Your task to perform on an android device: check storage Image 0: 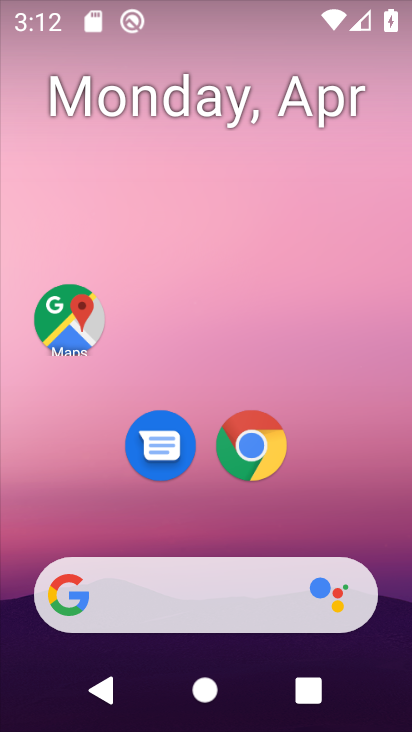
Step 0: drag from (242, 549) to (379, 55)
Your task to perform on an android device: check storage Image 1: 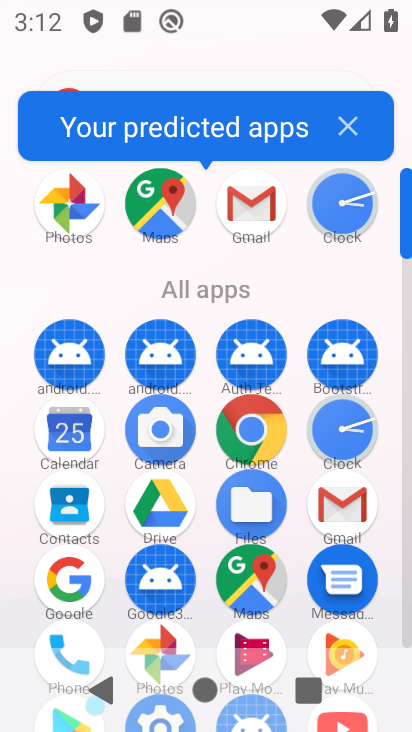
Step 1: drag from (215, 522) to (406, 64)
Your task to perform on an android device: check storage Image 2: 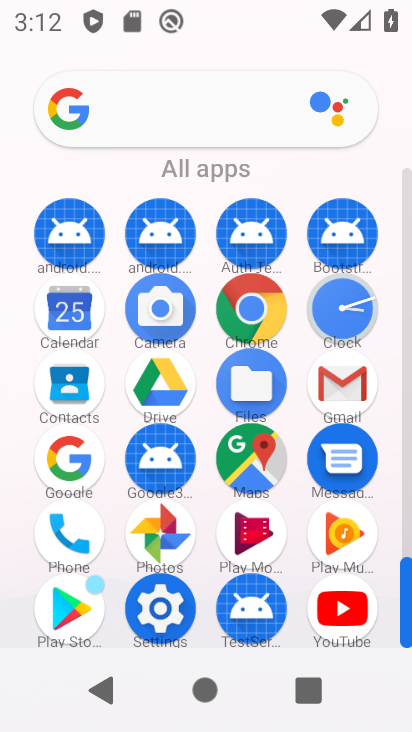
Step 2: click (148, 597)
Your task to perform on an android device: check storage Image 3: 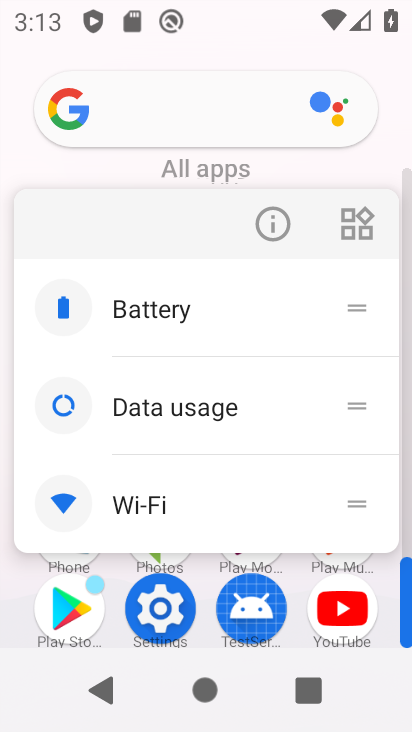
Step 3: click (148, 597)
Your task to perform on an android device: check storage Image 4: 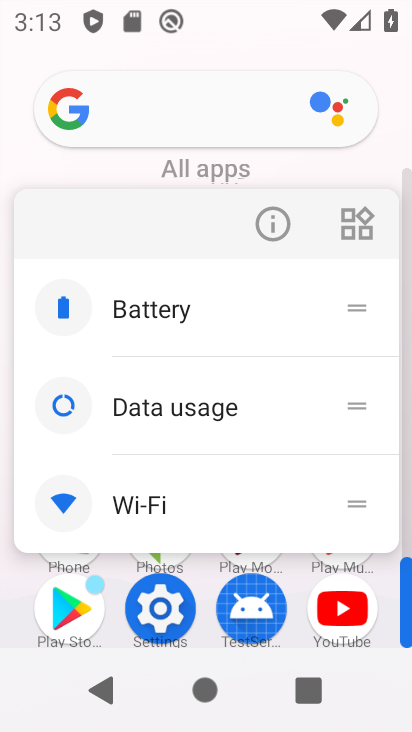
Step 4: click (148, 597)
Your task to perform on an android device: check storage Image 5: 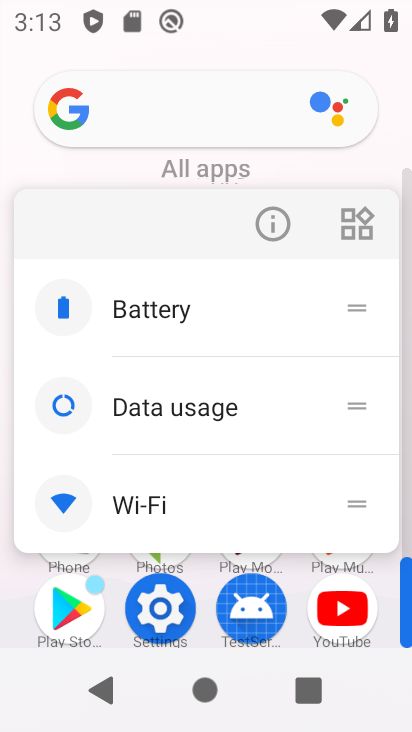
Step 5: click (148, 597)
Your task to perform on an android device: check storage Image 6: 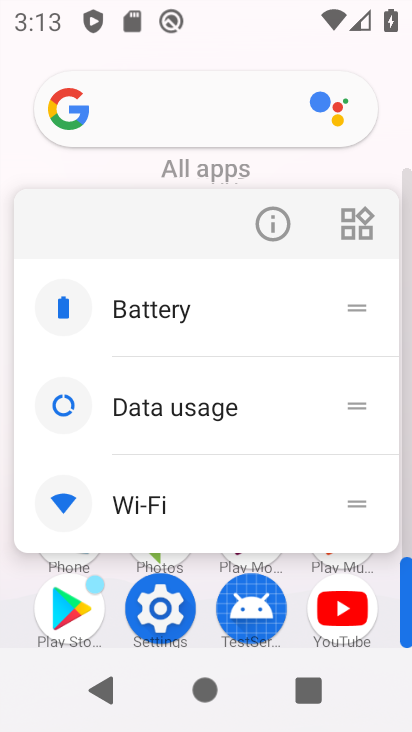
Step 6: click (148, 597)
Your task to perform on an android device: check storage Image 7: 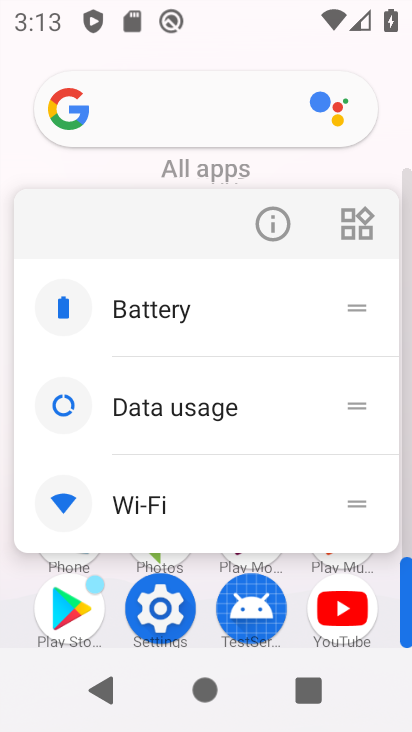
Step 7: click (148, 597)
Your task to perform on an android device: check storage Image 8: 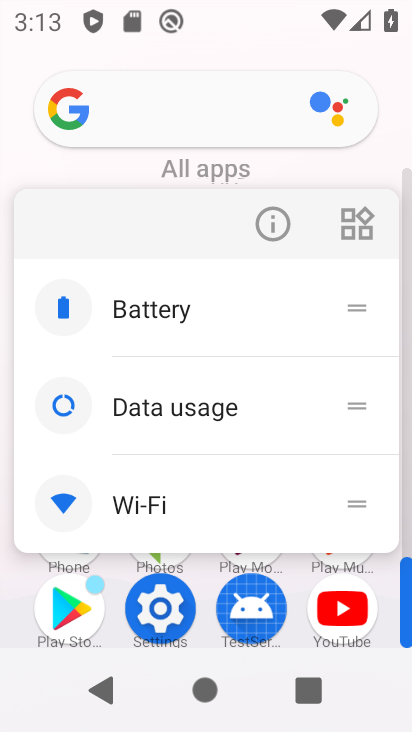
Step 8: click (148, 597)
Your task to perform on an android device: check storage Image 9: 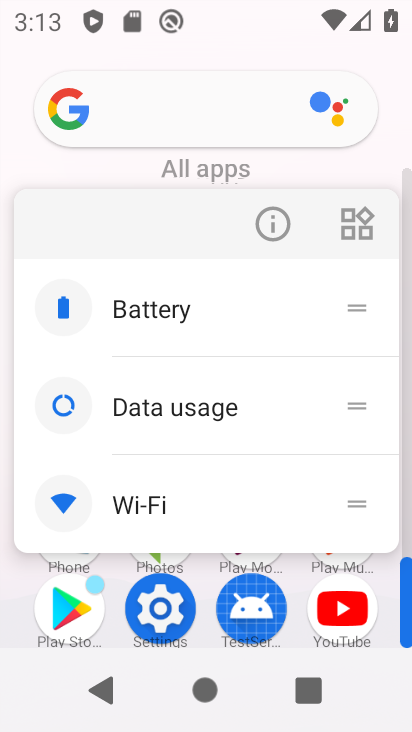
Step 9: click (148, 597)
Your task to perform on an android device: check storage Image 10: 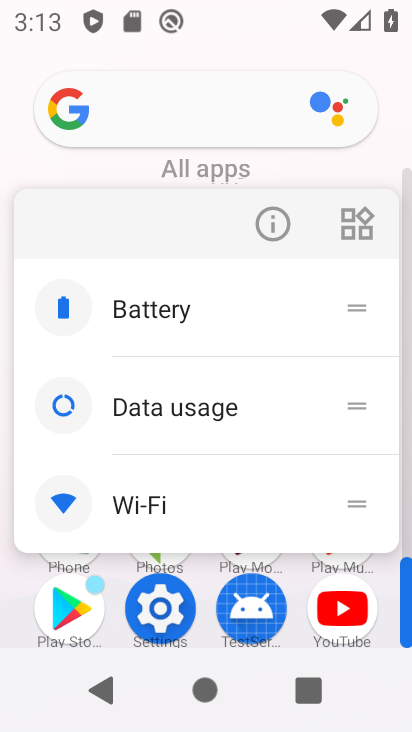
Step 10: click (148, 597)
Your task to perform on an android device: check storage Image 11: 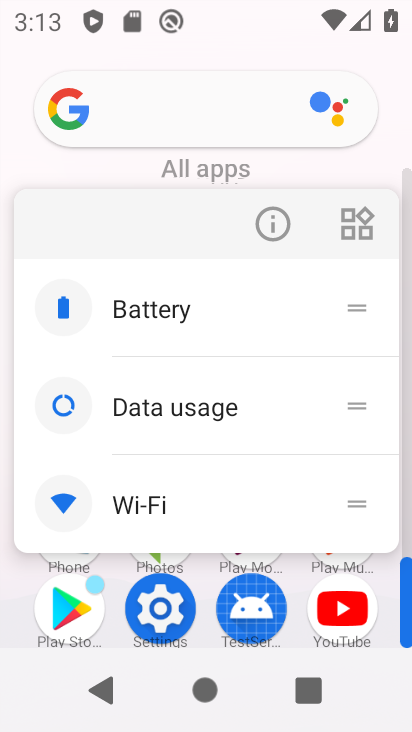
Step 11: click (148, 597)
Your task to perform on an android device: check storage Image 12: 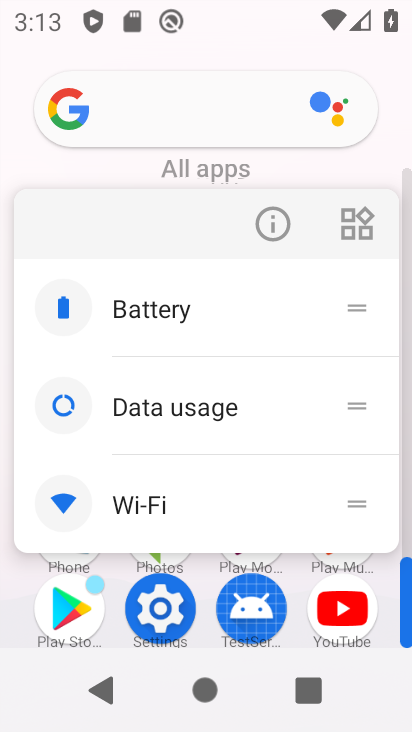
Step 12: click (148, 597)
Your task to perform on an android device: check storage Image 13: 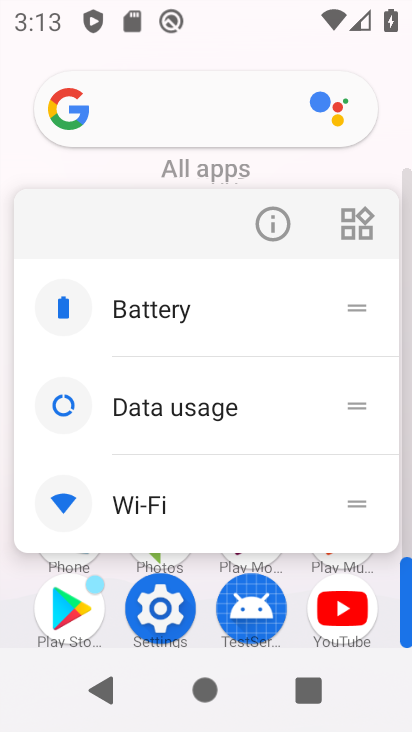
Step 13: click (148, 597)
Your task to perform on an android device: check storage Image 14: 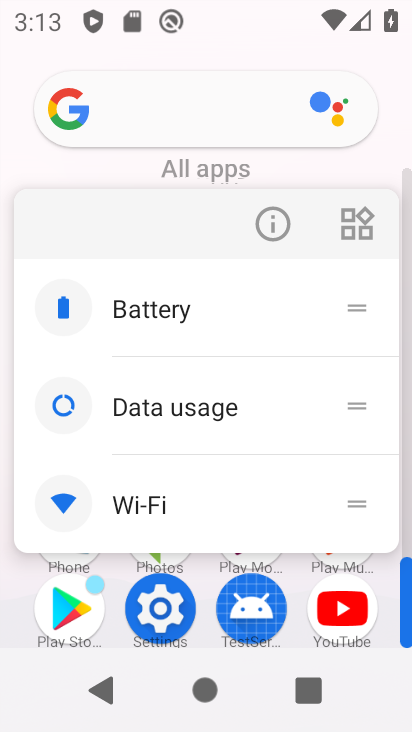
Step 14: click (148, 597)
Your task to perform on an android device: check storage Image 15: 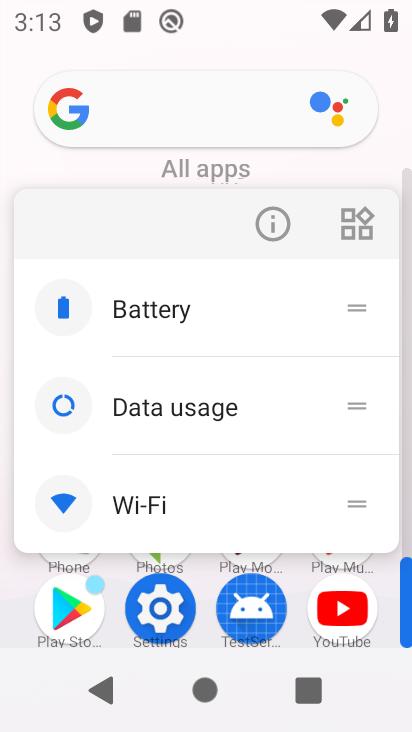
Step 15: click (148, 597)
Your task to perform on an android device: check storage Image 16: 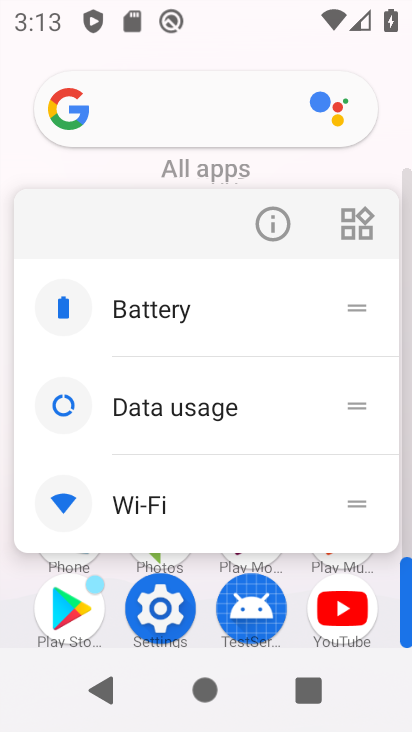
Step 16: click (148, 597)
Your task to perform on an android device: check storage Image 17: 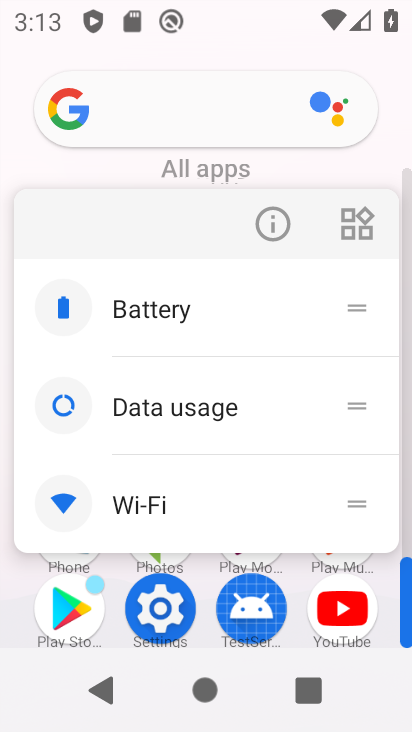
Step 17: click (172, 619)
Your task to perform on an android device: check storage Image 18: 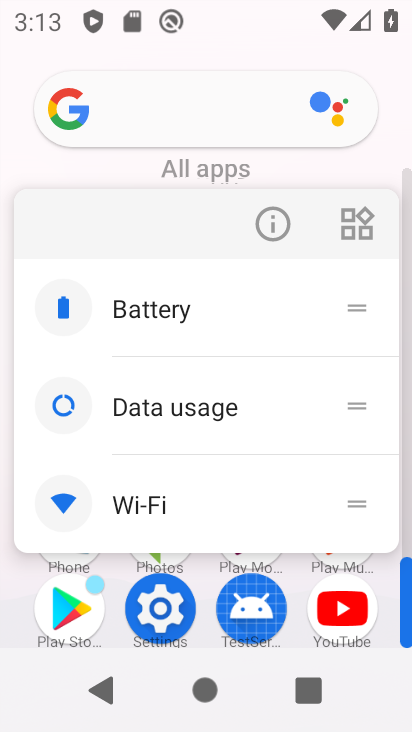
Step 18: click (172, 619)
Your task to perform on an android device: check storage Image 19: 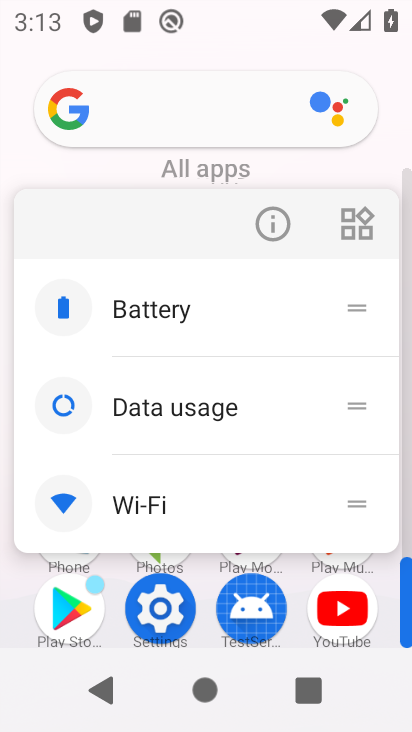
Step 19: click (172, 619)
Your task to perform on an android device: check storage Image 20: 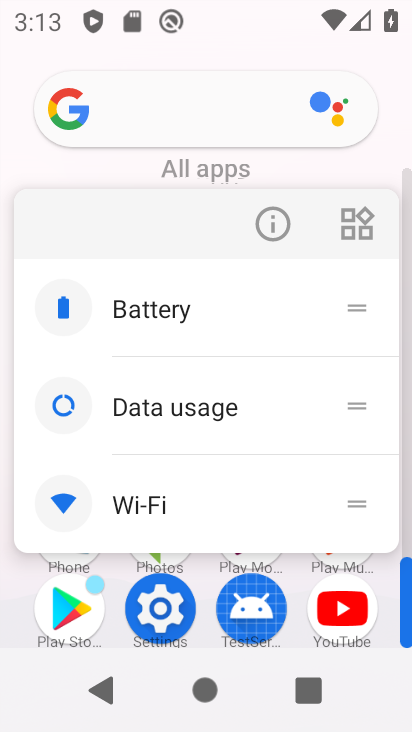
Step 20: click (149, 616)
Your task to perform on an android device: check storage Image 21: 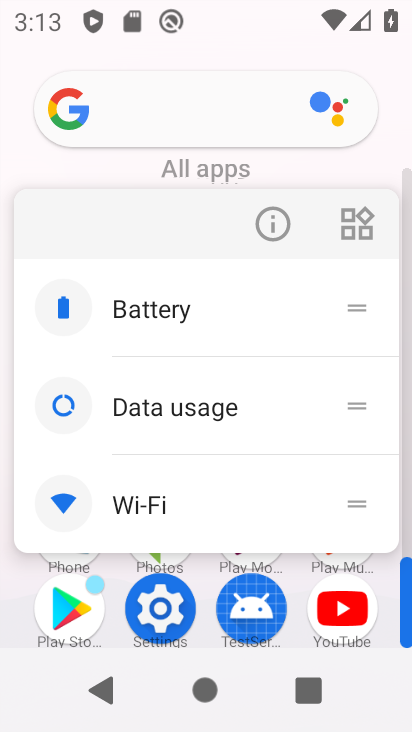
Step 21: click (149, 616)
Your task to perform on an android device: check storage Image 22: 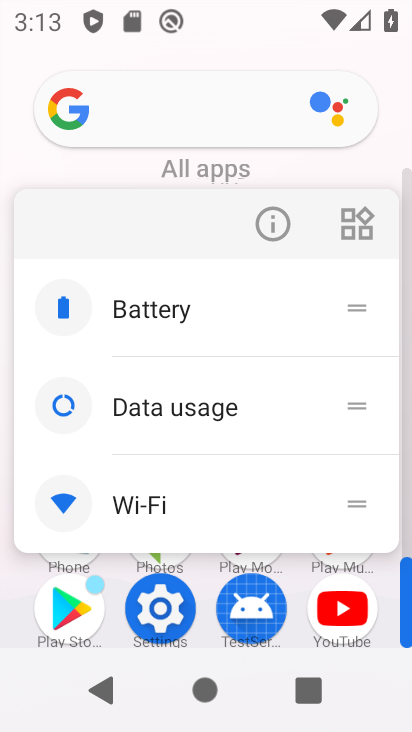
Step 22: click (156, 609)
Your task to perform on an android device: check storage Image 23: 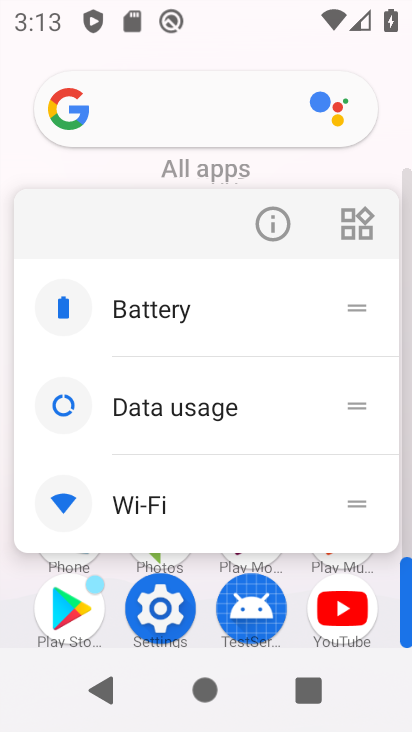
Step 23: click (156, 609)
Your task to perform on an android device: check storage Image 24: 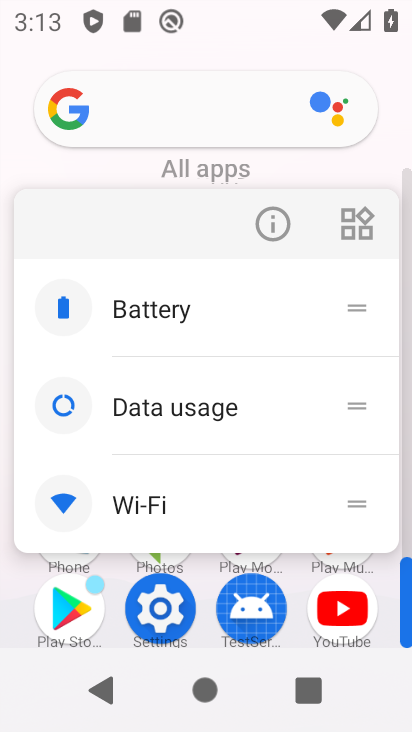
Step 24: click (156, 609)
Your task to perform on an android device: check storage Image 25: 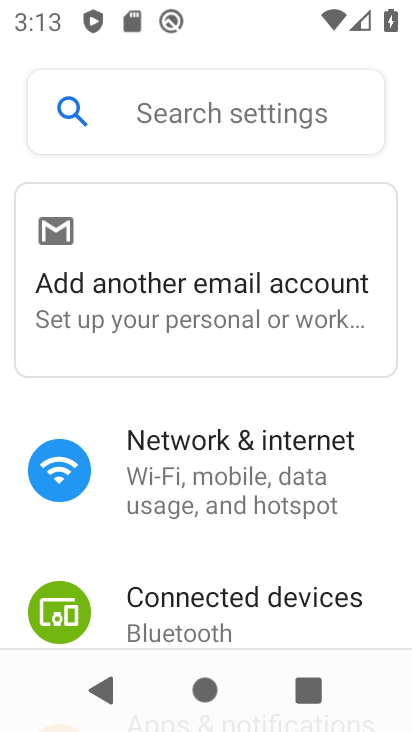
Step 25: drag from (248, 537) to (404, 78)
Your task to perform on an android device: check storage Image 26: 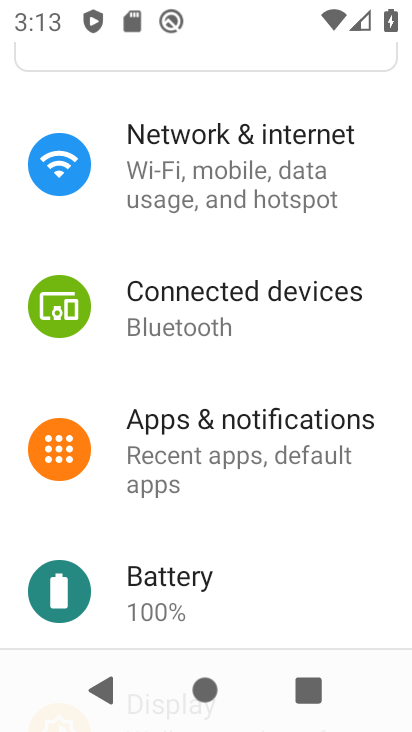
Step 26: drag from (234, 534) to (389, 99)
Your task to perform on an android device: check storage Image 27: 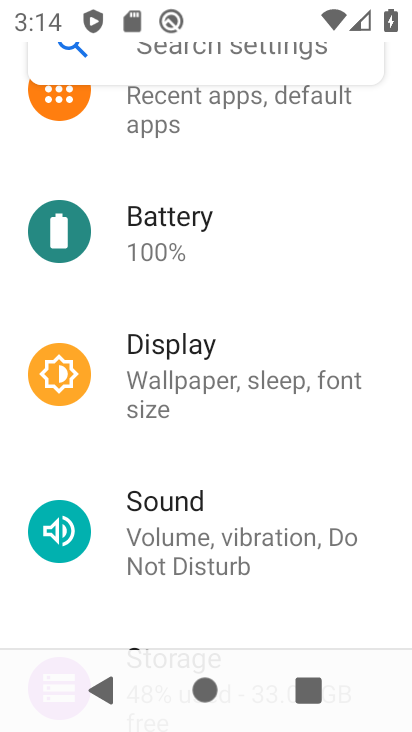
Step 27: drag from (332, 516) to (395, 105)
Your task to perform on an android device: check storage Image 28: 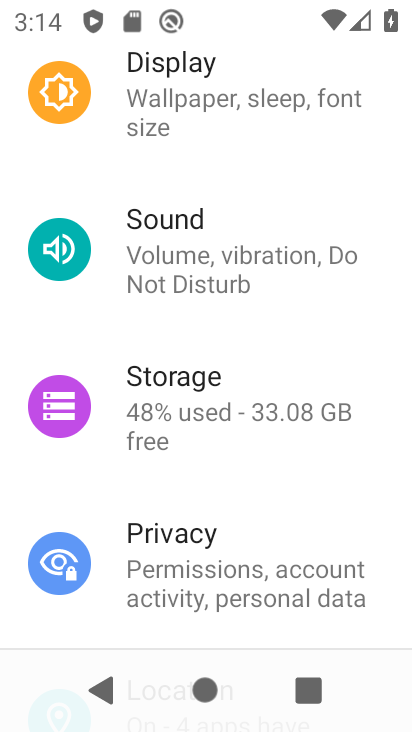
Step 28: click (192, 376)
Your task to perform on an android device: check storage Image 29: 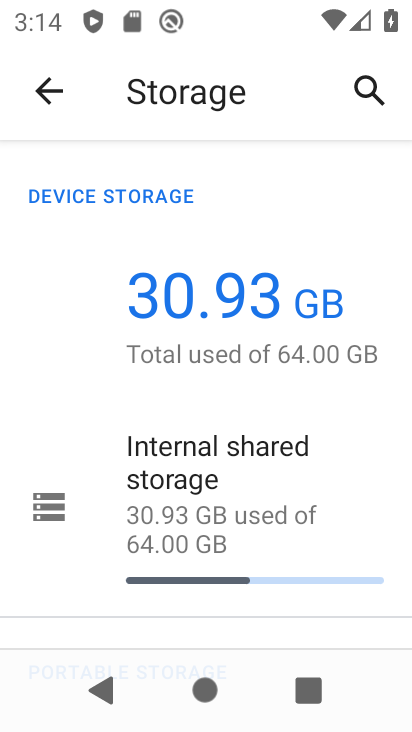
Step 29: task complete